Your task to perform on an android device: Open Youtube and go to the subscriptions tab Image 0: 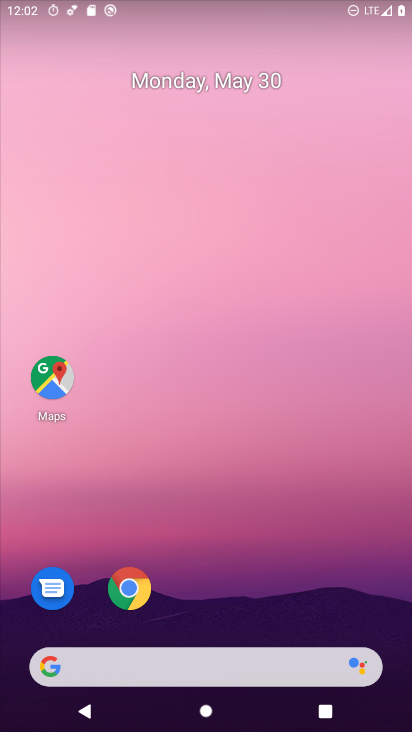
Step 0: drag from (273, 597) to (271, 190)
Your task to perform on an android device: Open Youtube and go to the subscriptions tab Image 1: 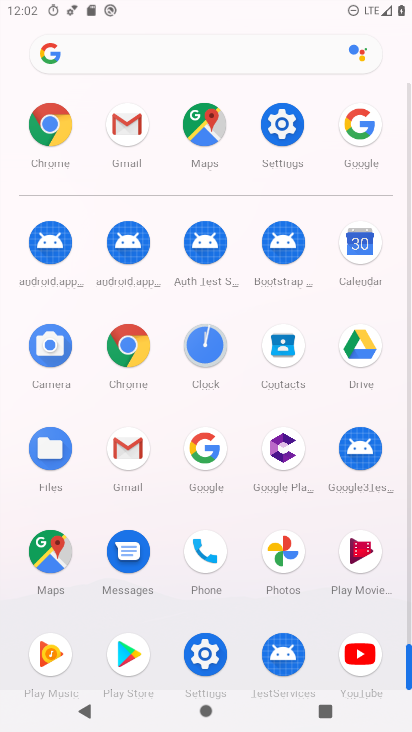
Step 1: click (353, 668)
Your task to perform on an android device: Open Youtube and go to the subscriptions tab Image 2: 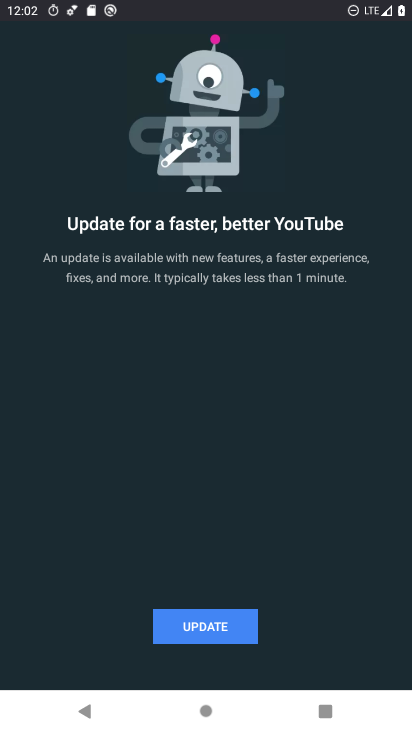
Step 2: click (246, 631)
Your task to perform on an android device: Open Youtube and go to the subscriptions tab Image 3: 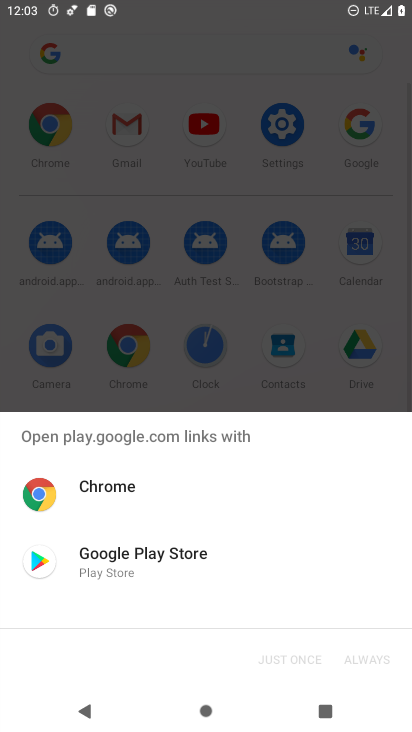
Step 3: press home button
Your task to perform on an android device: Open Youtube and go to the subscriptions tab Image 4: 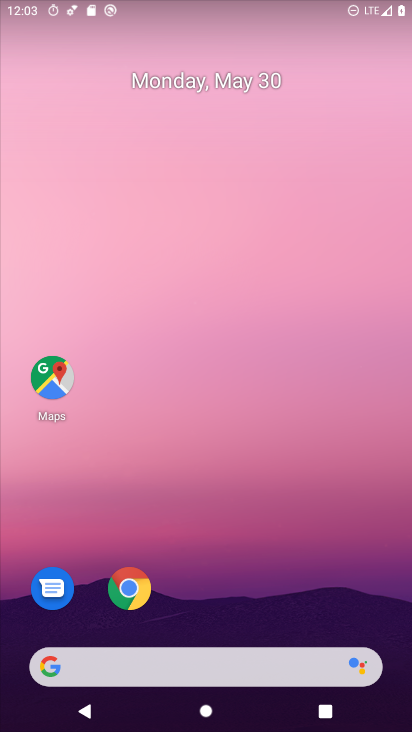
Step 4: drag from (256, 607) to (289, 188)
Your task to perform on an android device: Open Youtube and go to the subscriptions tab Image 5: 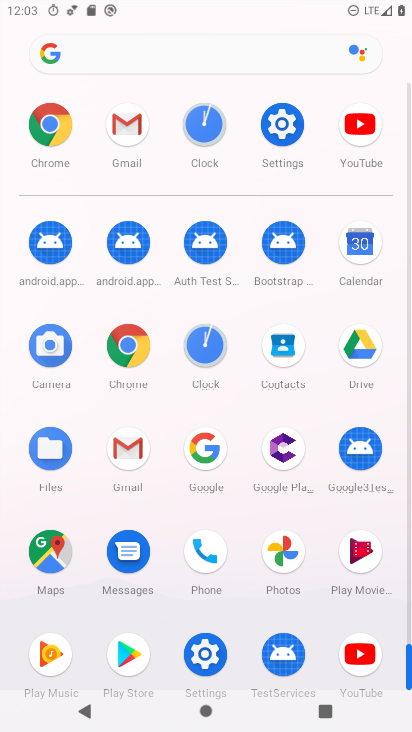
Step 5: click (344, 658)
Your task to perform on an android device: Open Youtube and go to the subscriptions tab Image 6: 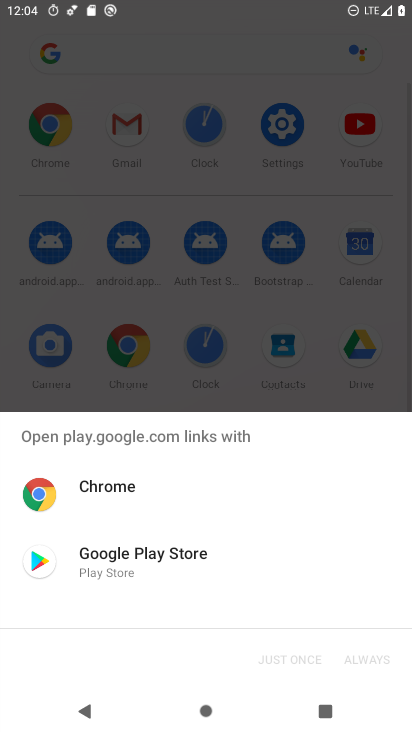
Step 6: click (164, 568)
Your task to perform on an android device: Open Youtube and go to the subscriptions tab Image 7: 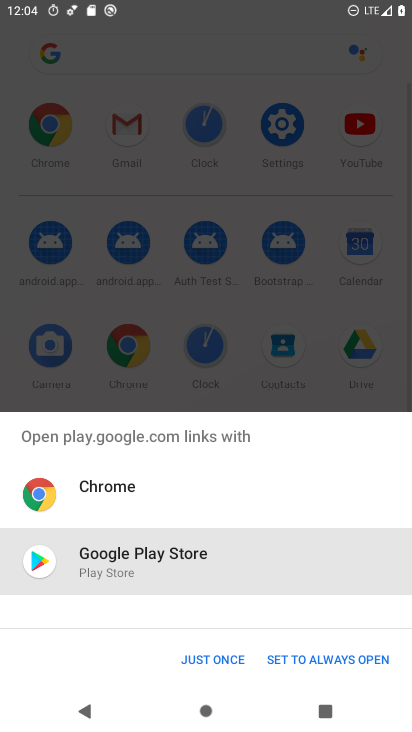
Step 7: drag from (283, 667) to (209, 660)
Your task to perform on an android device: Open Youtube and go to the subscriptions tab Image 8: 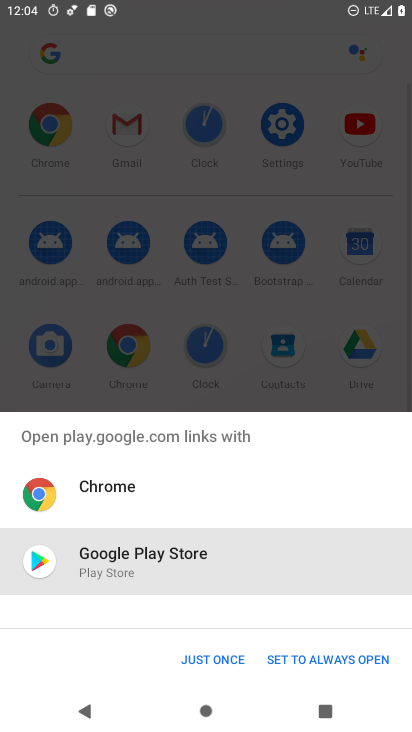
Step 8: click (210, 666)
Your task to perform on an android device: Open Youtube and go to the subscriptions tab Image 9: 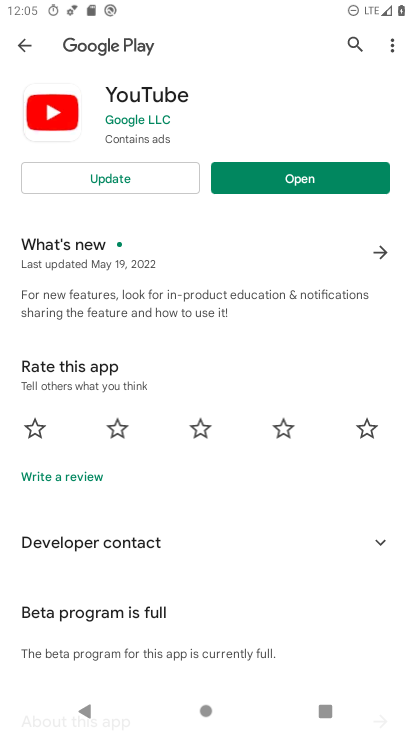
Step 9: click (170, 190)
Your task to perform on an android device: Open Youtube and go to the subscriptions tab Image 10: 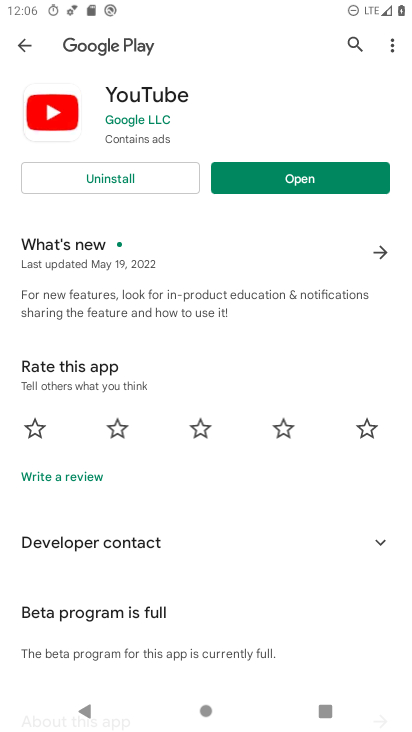
Step 10: click (298, 174)
Your task to perform on an android device: Open Youtube and go to the subscriptions tab Image 11: 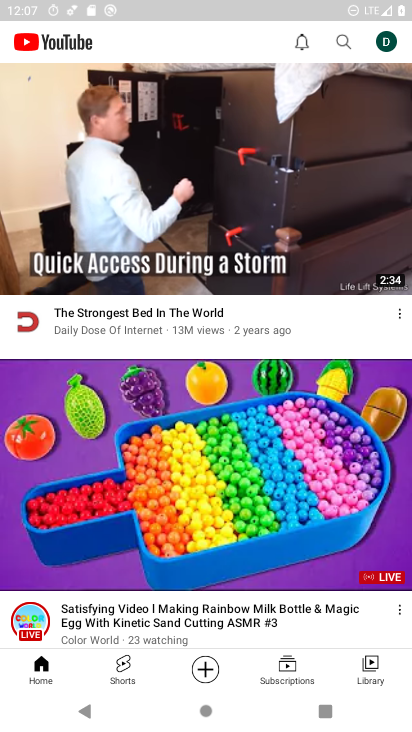
Step 11: click (292, 679)
Your task to perform on an android device: Open Youtube and go to the subscriptions tab Image 12: 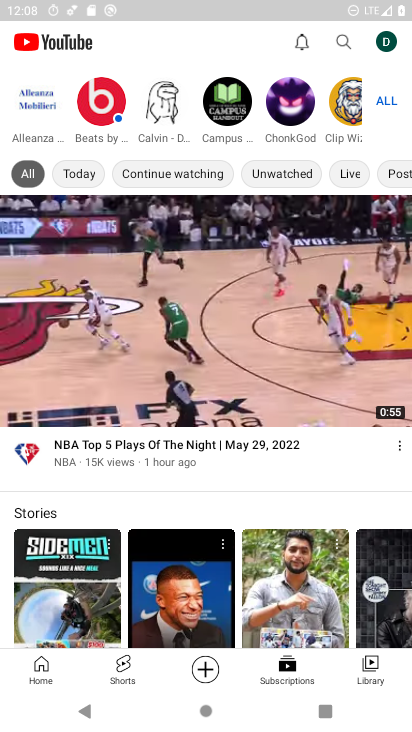
Step 12: task complete